Your task to perform on an android device: turn notification dots on Image 0: 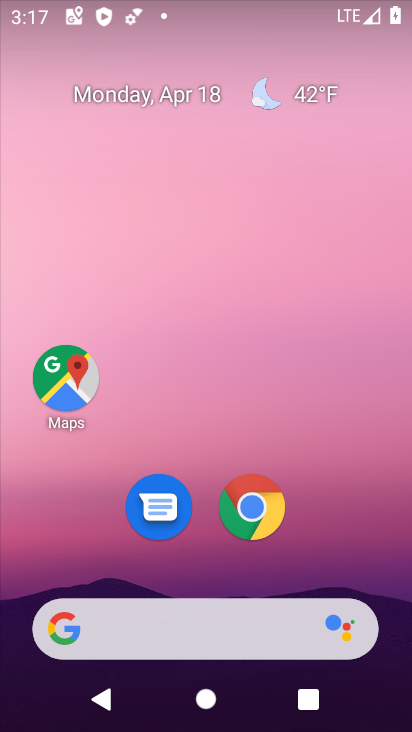
Step 0: drag from (345, 530) to (345, 175)
Your task to perform on an android device: turn notification dots on Image 1: 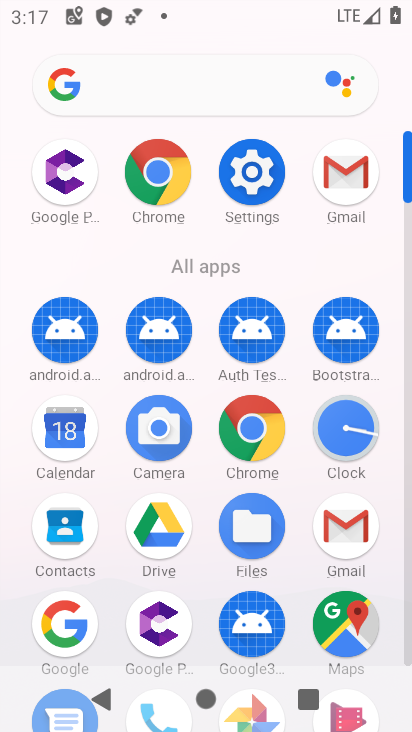
Step 1: click (266, 182)
Your task to perform on an android device: turn notification dots on Image 2: 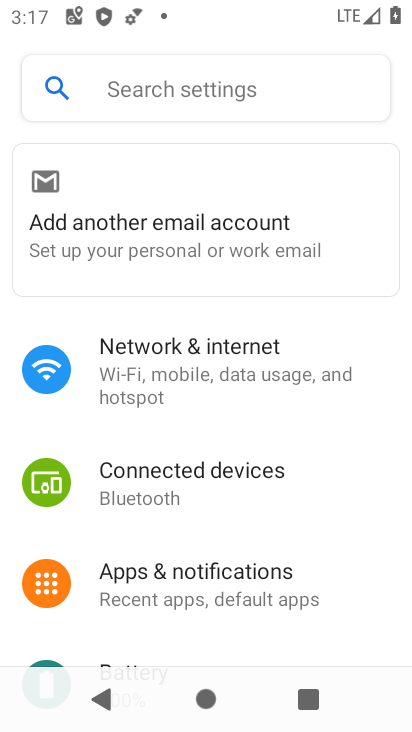
Step 2: click (258, 575)
Your task to perform on an android device: turn notification dots on Image 3: 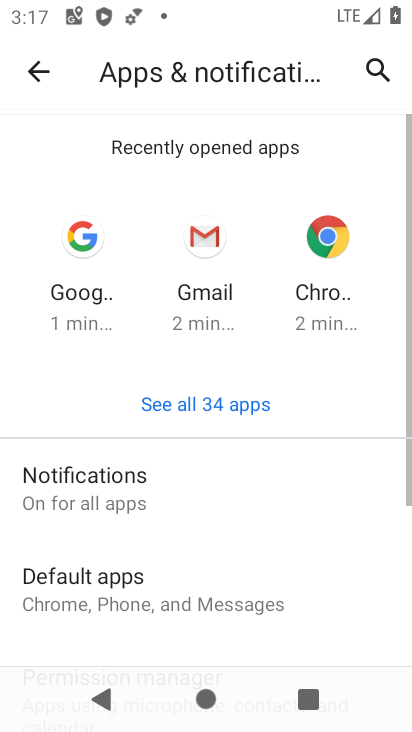
Step 3: click (146, 497)
Your task to perform on an android device: turn notification dots on Image 4: 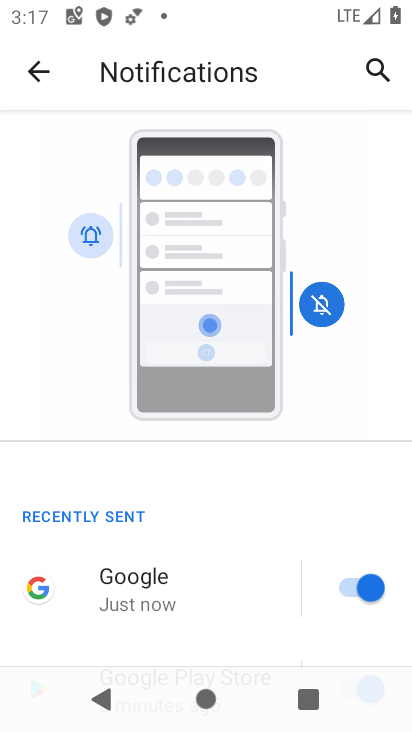
Step 4: drag from (278, 555) to (397, 269)
Your task to perform on an android device: turn notification dots on Image 5: 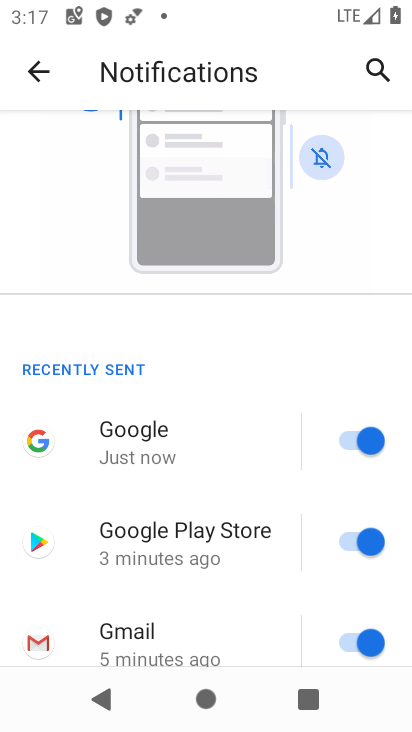
Step 5: drag from (260, 633) to (256, 330)
Your task to perform on an android device: turn notification dots on Image 6: 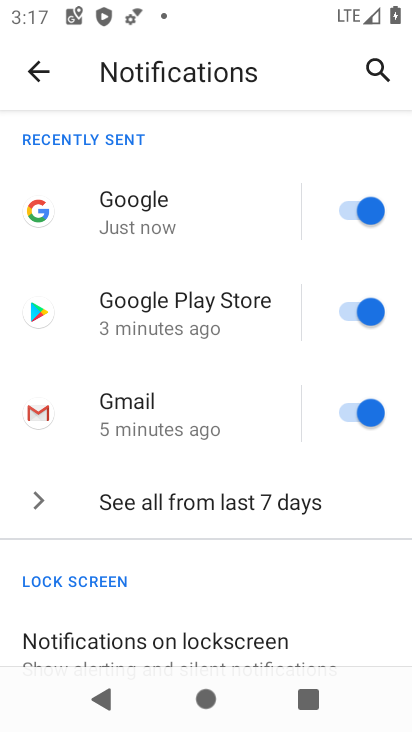
Step 6: drag from (325, 639) to (292, 345)
Your task to perform on an android device: turn notification dots on Image 7: 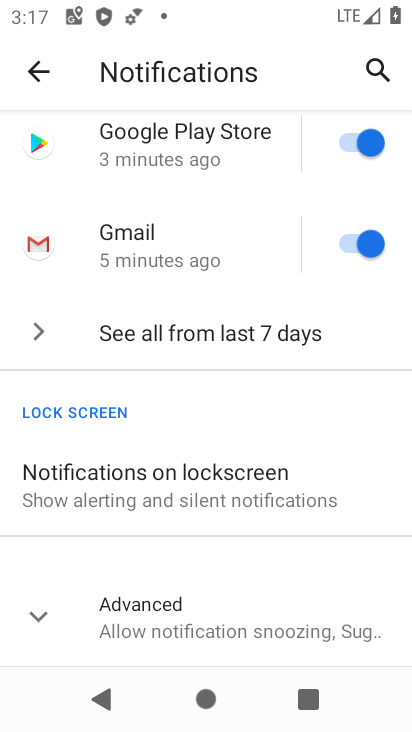
Step 7: click (257, 606)
Your task to perform on an android device: turn notification dots on Image 8: 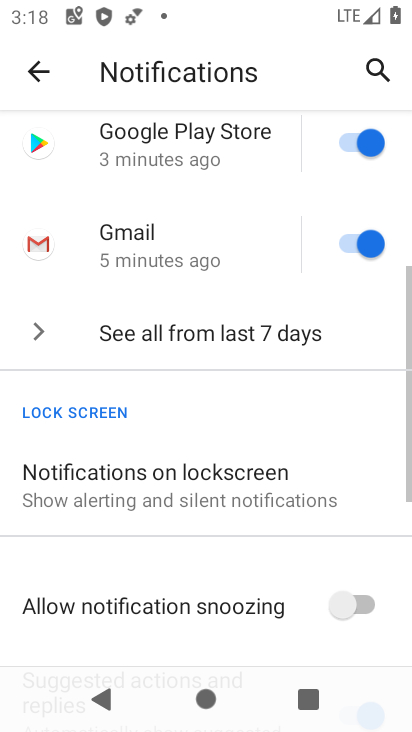
Step 8: task complete